Your task to perform on an android device: turn off sleep mode Image 0: 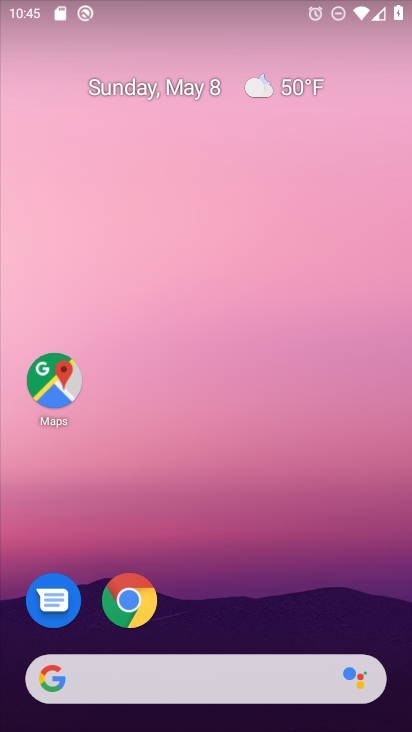
Step 0: drag from (210, 730) to (203, 223)
Your task to perform on an android device: turn off sleep mode Image 1: 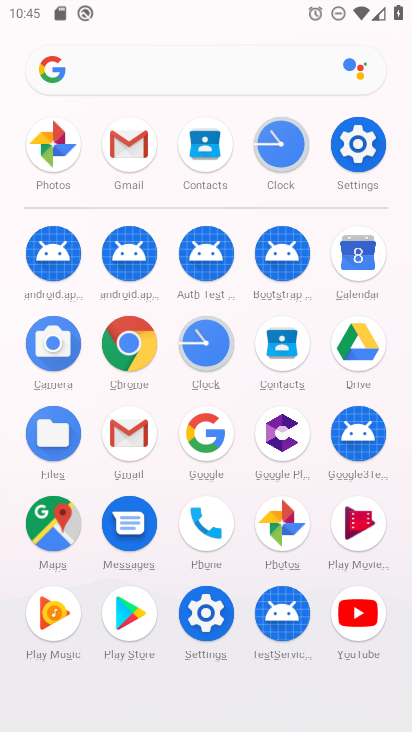
Step 1: click (202, 619)
Your task to perform on an android device: turn off sleep mode Image 2: 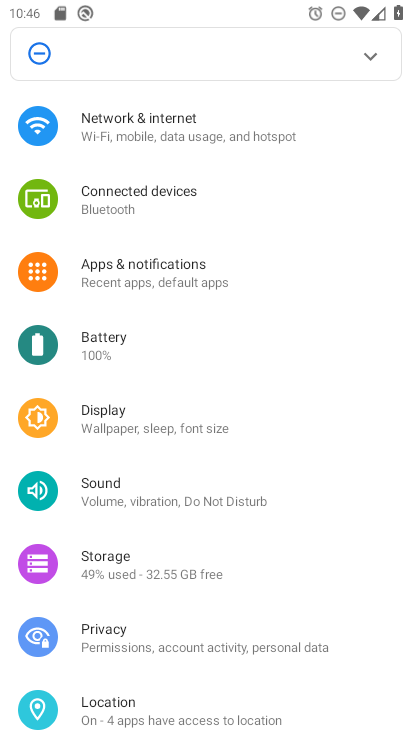
Step 2: drag from (195, 696) to (229, 352)
Your task to perform on an android device: turn off sleep mode Image 3: 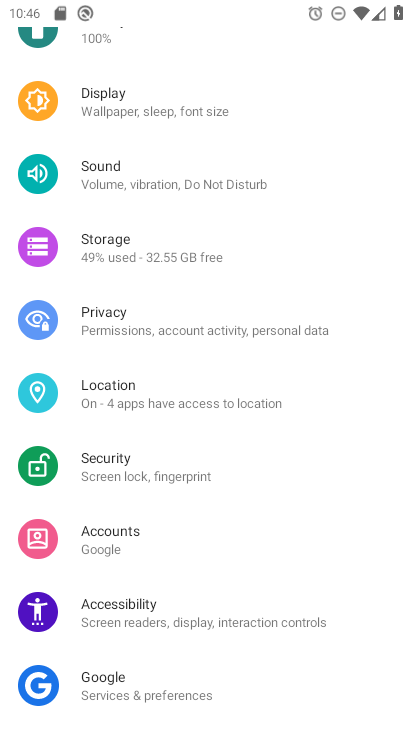
Step 3: drag from (226, 691) to (233, 290)
Your task to perform on an android device: turn off sleep mode Image 4: 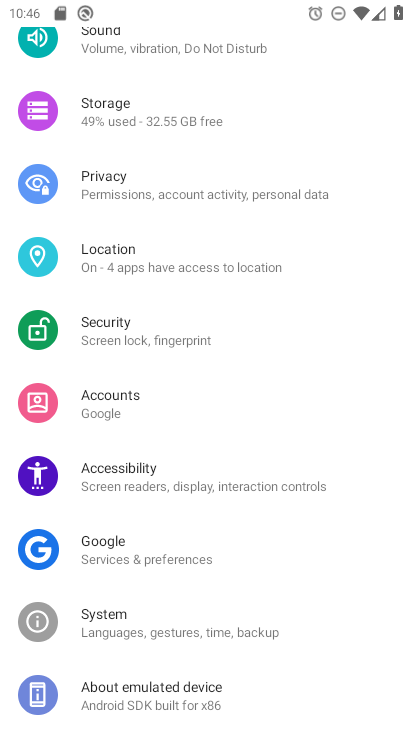
Step 4: drag from (255, 100) to (239, 584)
Your task to perform on an android device: turn off sleep mode Image 5: 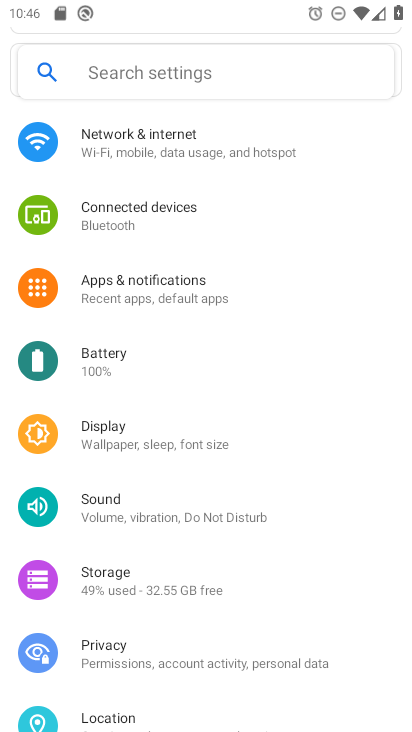
Step 5: click (176, 441)
Your task to perform on an android device: turn off sleep mode Image 6: 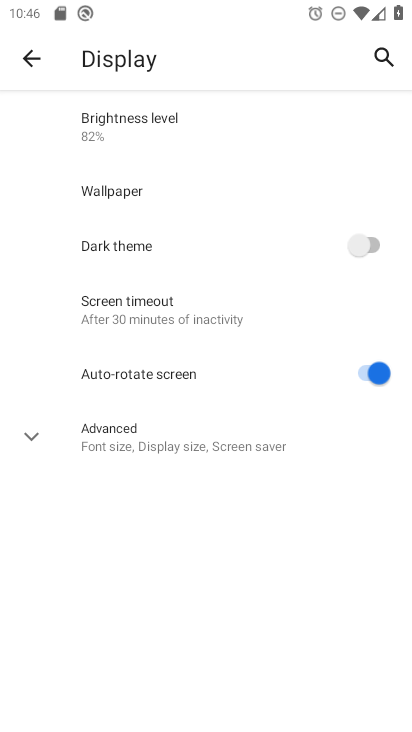
Step 6: task complete